Your task to perform on an android device: Open Google Maps Image 0: 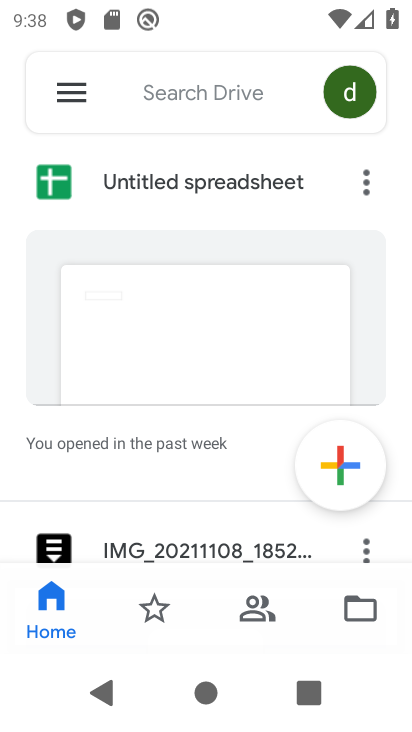
Step 0: press home button
Your task to perform on an android device: Open Google Maps Image 1: 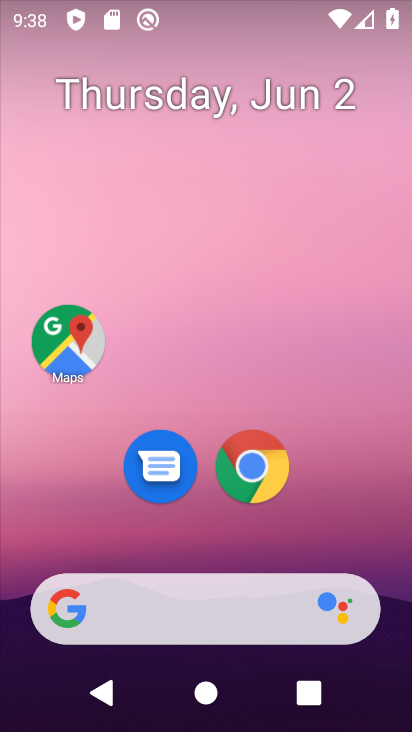
Step 1: drag from (222, 548) to (282, 17)
Your task to perform on an android device: Open Google Maps Image 2: 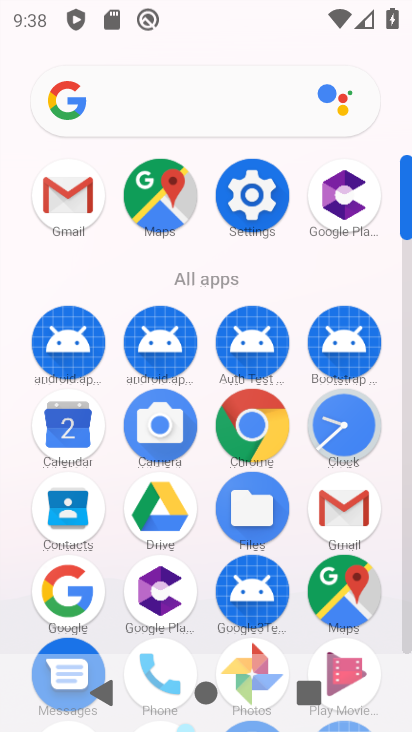
Step 2: click (154, 195)
Your task to perform on an android device: Open Google Maps Image 3: 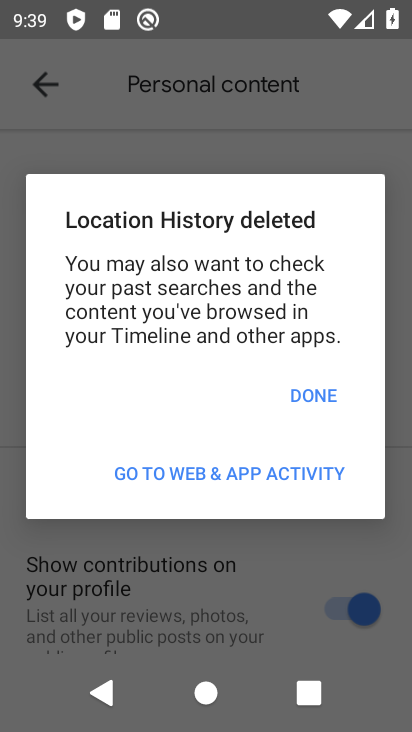
Step 3: task complete